Your task to perform on an android device: What is the recent news? Image 0: 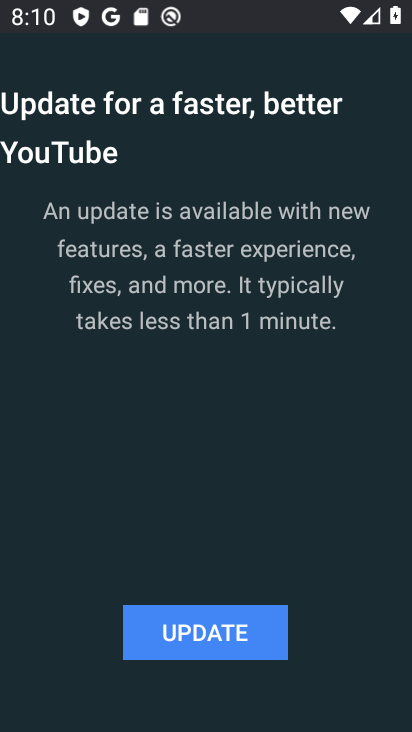
Step 0: press home button
Your task to perform on an android device: What is the recent news? Image 1: 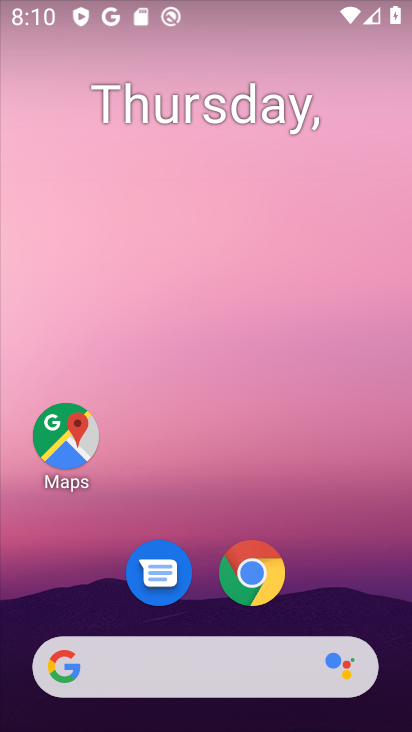
Step 1: drag from (370, 577) to (329, 147)
Your task to perform on an android device: What is the recent news? Image 2: 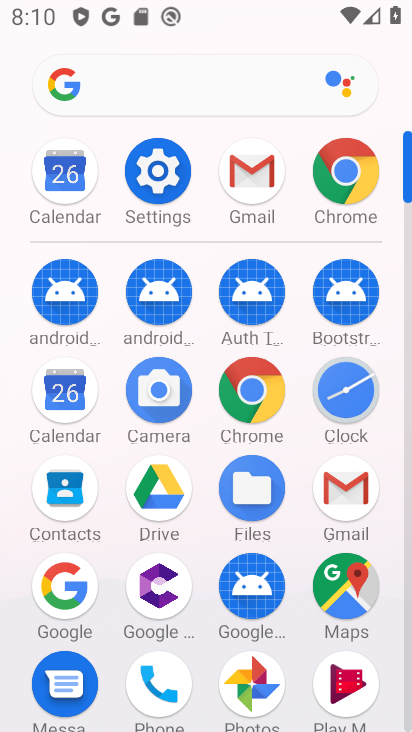
Step 2: drag from (291, 636) to (297, 333)
Your task to perform on an android device: What is the recent news? Image 3: 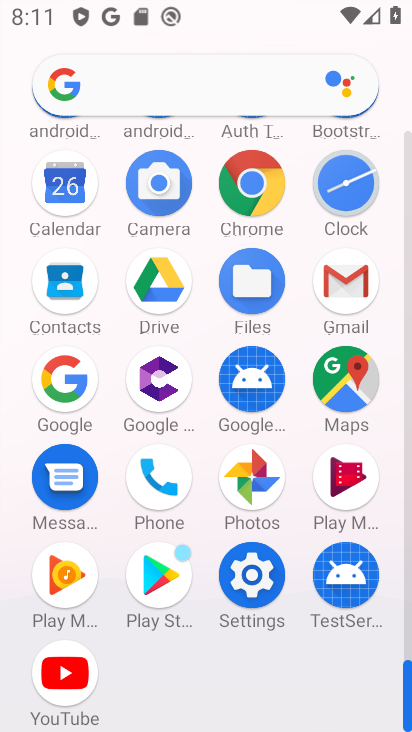
Step 3: drag from (306, 269) to (317, 578)
Your task to perform on an android device: What is the recent news? Image 4: 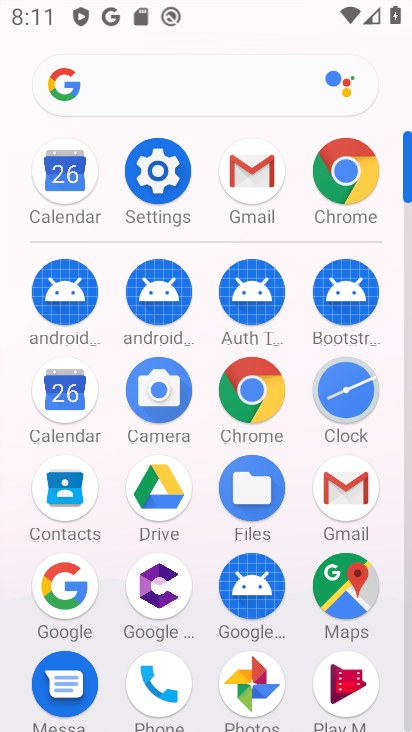
Step 4: click (242, 406)
Your task to perform on an android device: What is the recent news? Image 5: 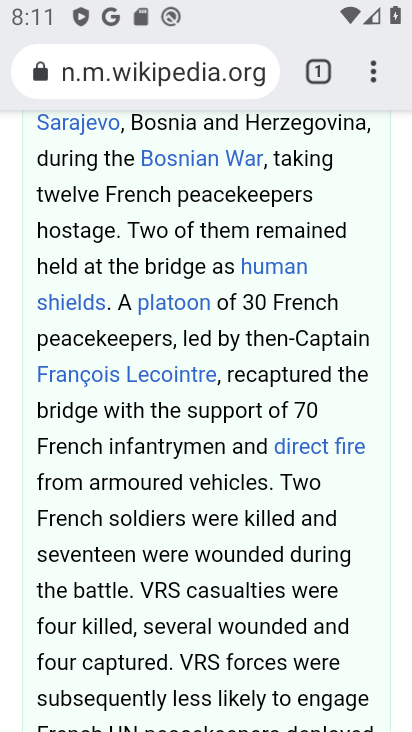
Step 5: click (158, 83)
Your task to perform on an android device: What is the recent news? Image 6: 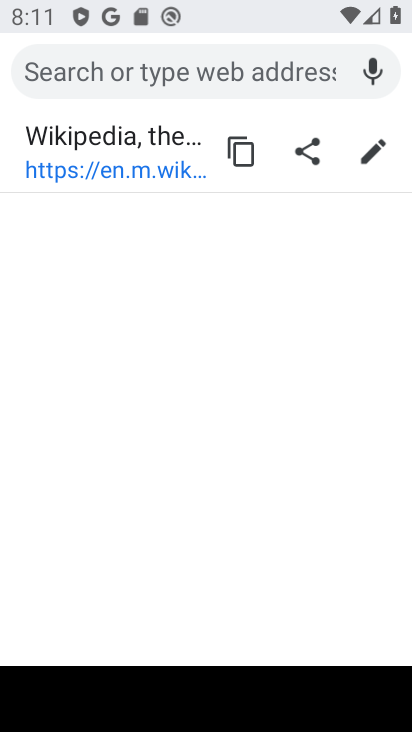
Step 6: type "what is the recent news"
Your task to perform on an android device: What is the recent news? Image 7: 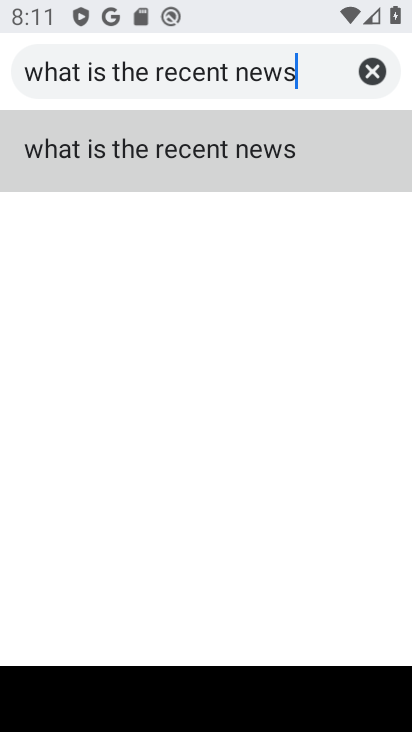
Step 7: click (153, 156)
Your task to perform on an android device: What is the recent news? Image 8: 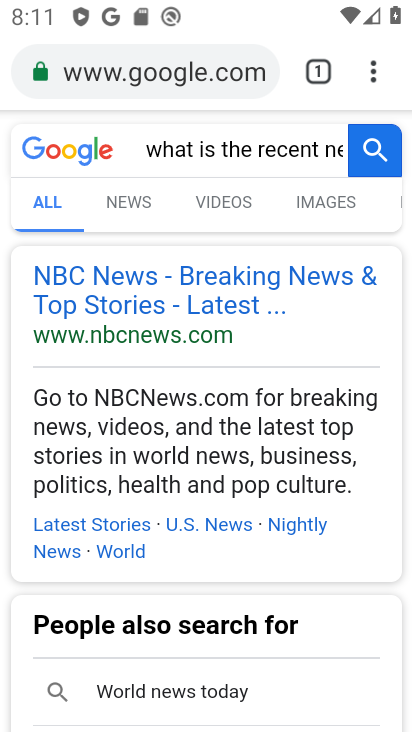
Step 8: task complete